Your task to perform on an android device: Turn on the flashlight Image 0: 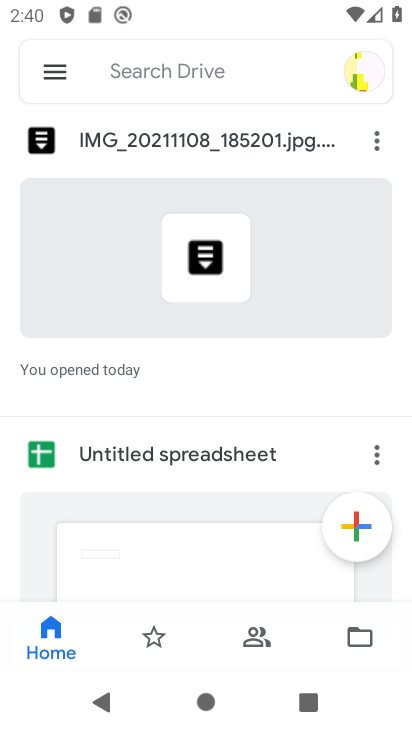
Step 0: press home button
Your task to perform on an android device: Turn on the flashlight Image 1: 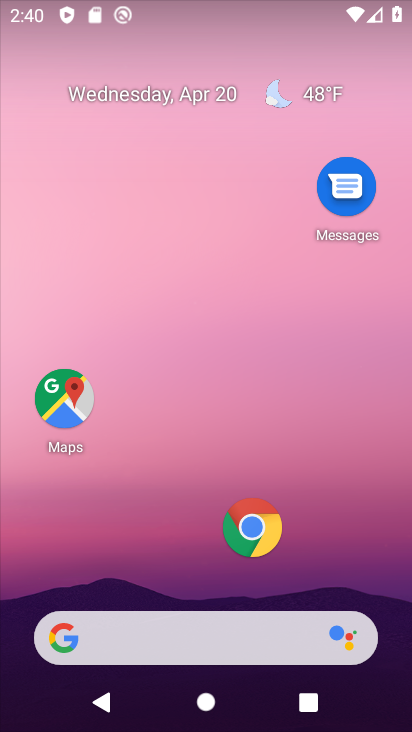
Step 1: task complete